Your task to perform on an android device: Check out the top rated books on Goodreads. Image 0: 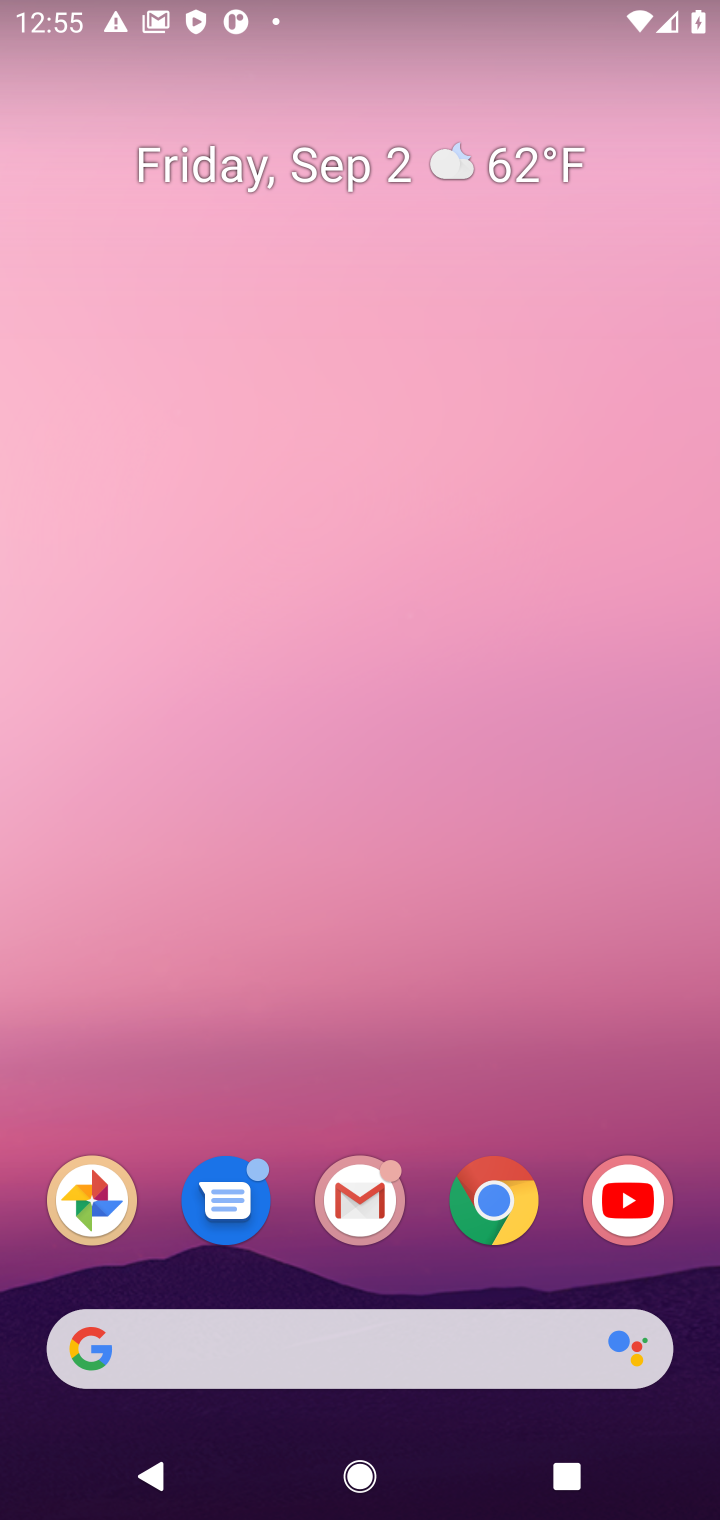
Step 0: click (495, 1201)
Your task to perform on an android device: Check out the top rated books on Goodreads. Image 1: 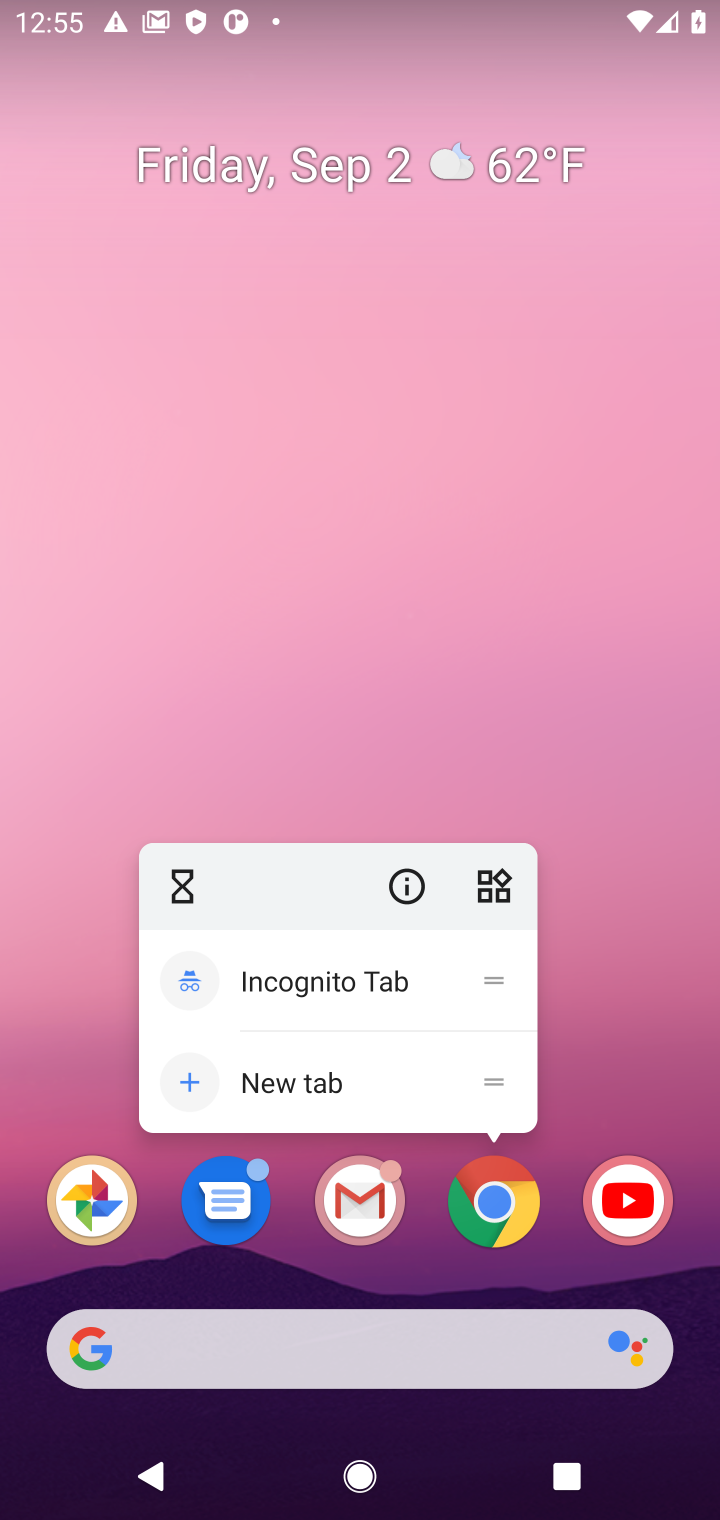
Step 1: click (495, 1205)
Your task to perform on an android device: Check out the top rated books on Goodreads. Image 2: 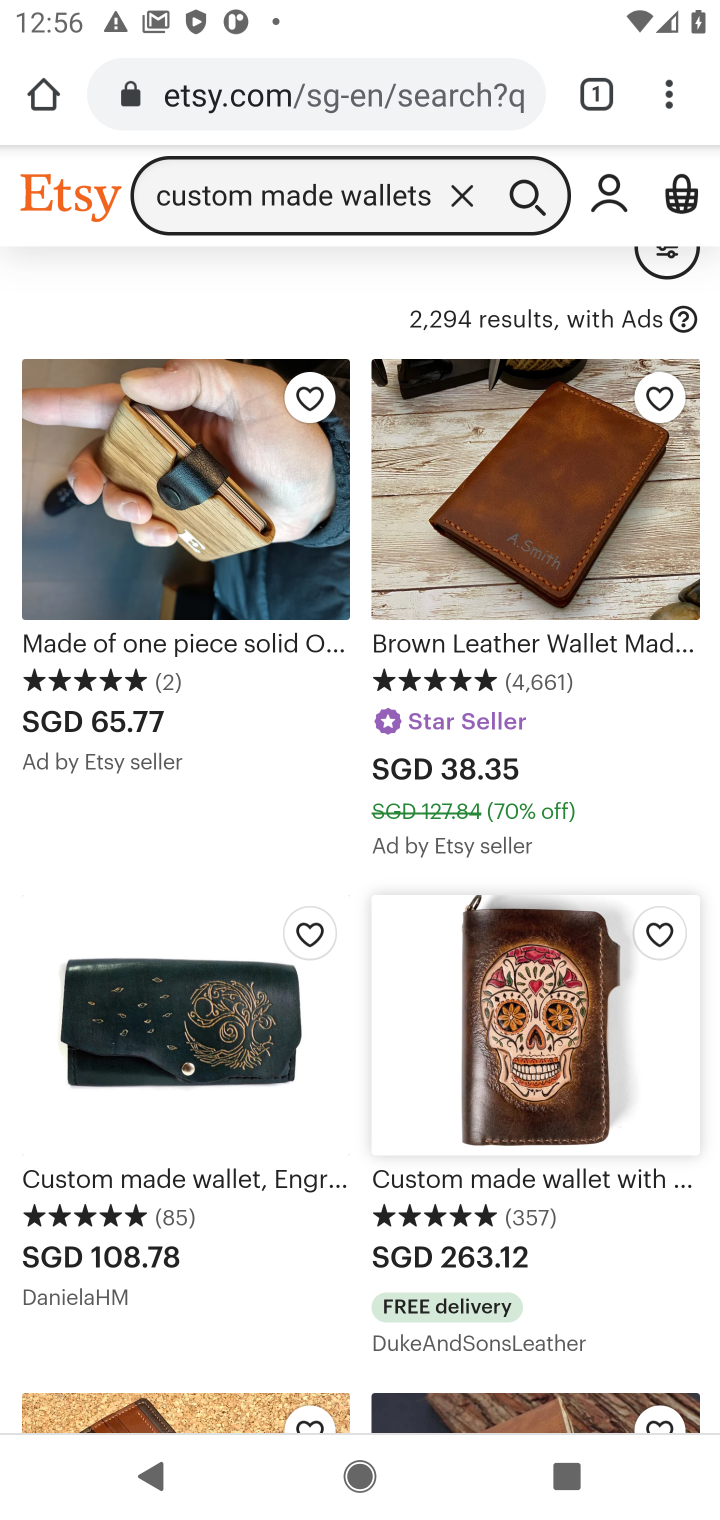
Step 2: click (369, 90)
Your task to perform on an android device: Check out the top rated books on Goodreads. Image 3: 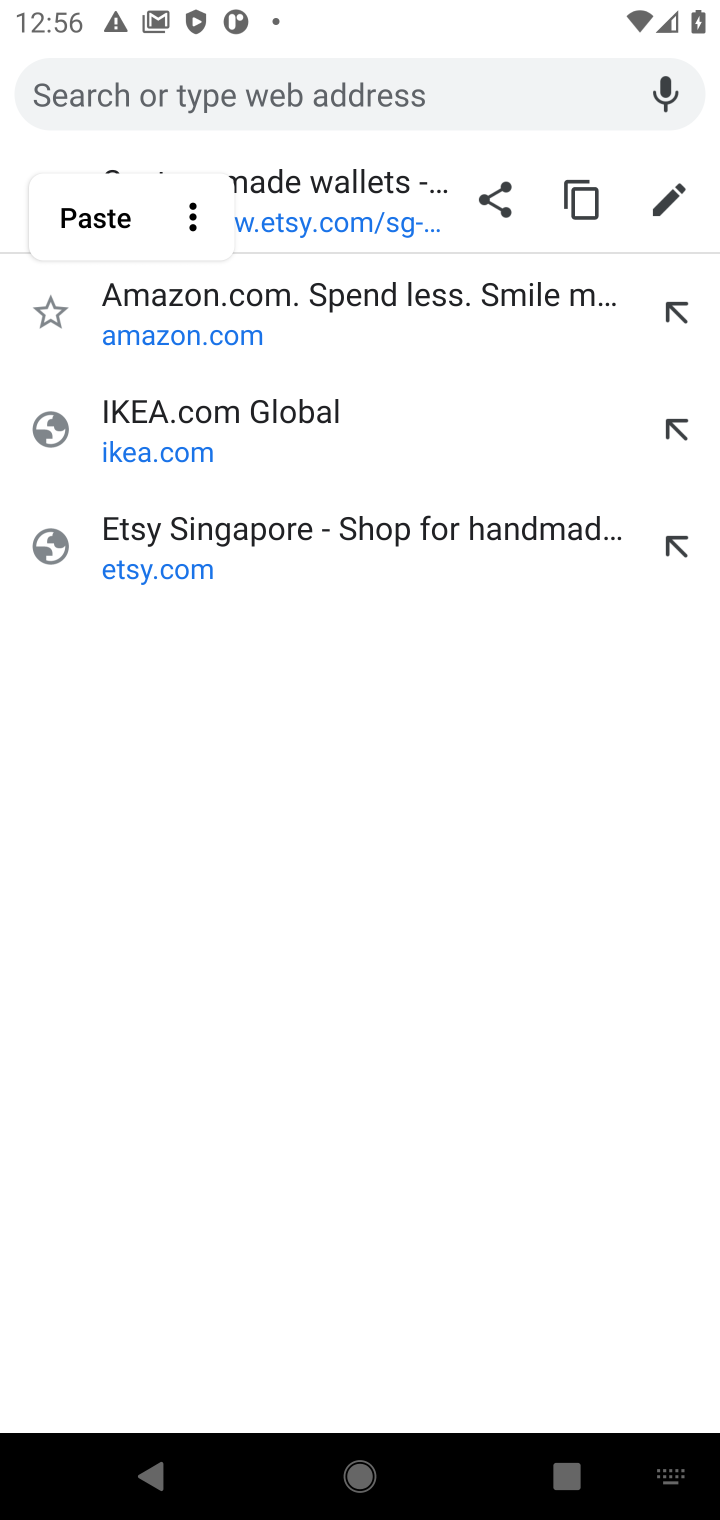
Step 3: type "Goodreads"
Your task to perform on an android device: Check out the top rated books on Goodreads. Image 4: 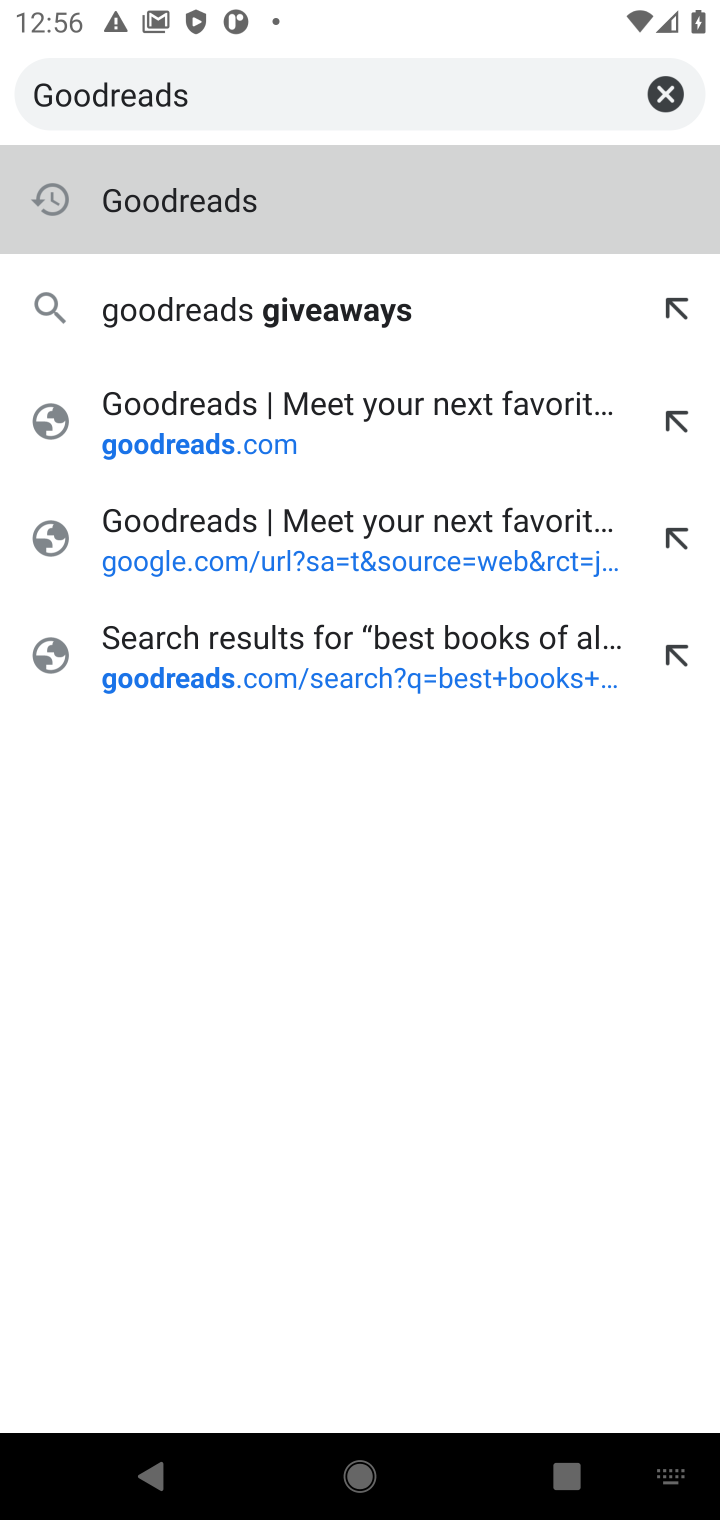
Step 4: press enter
Your task to perform on an android device: Check out the top rated books on Goodreads. Image 5: 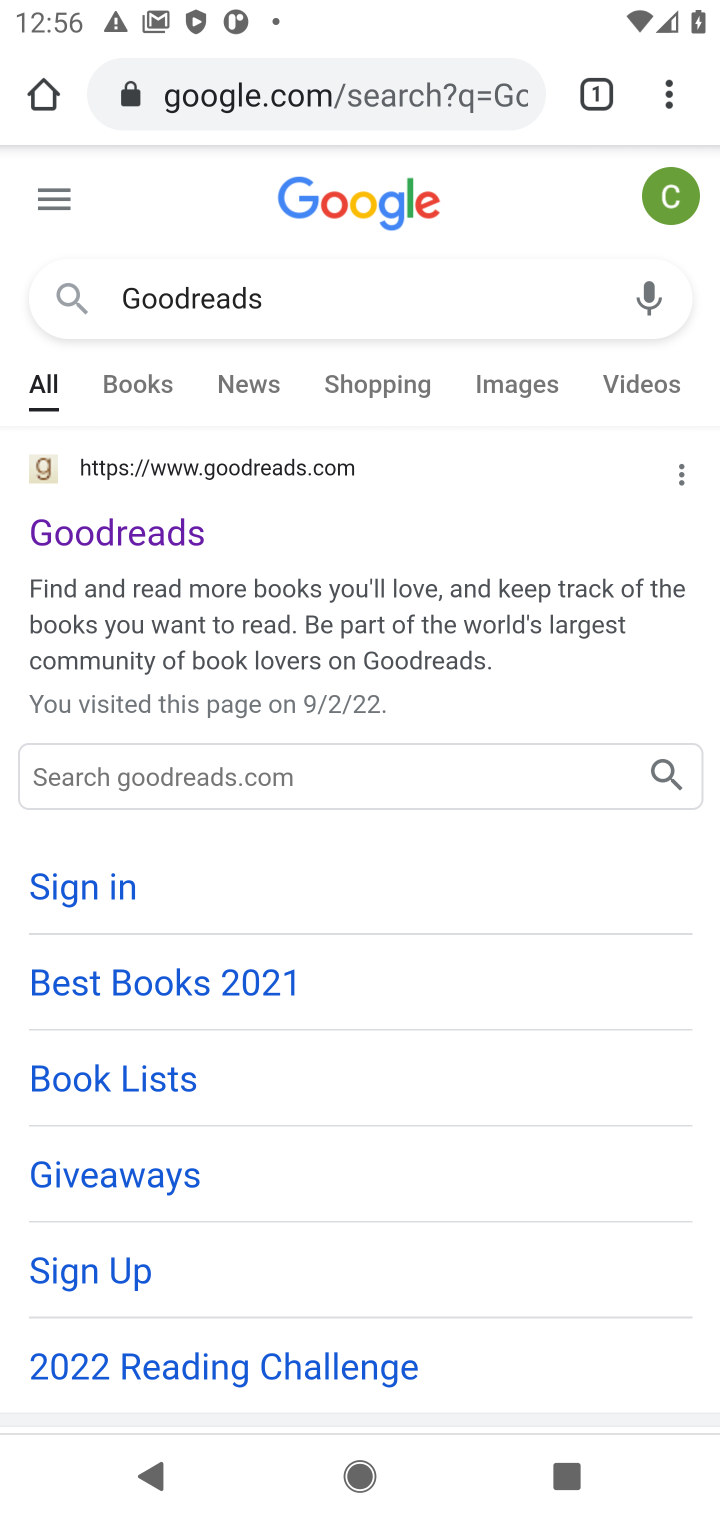
Step 5: click (169, 524)
Your task to perform on an android device: Check out the top rated books on Goodreads. Image 6: 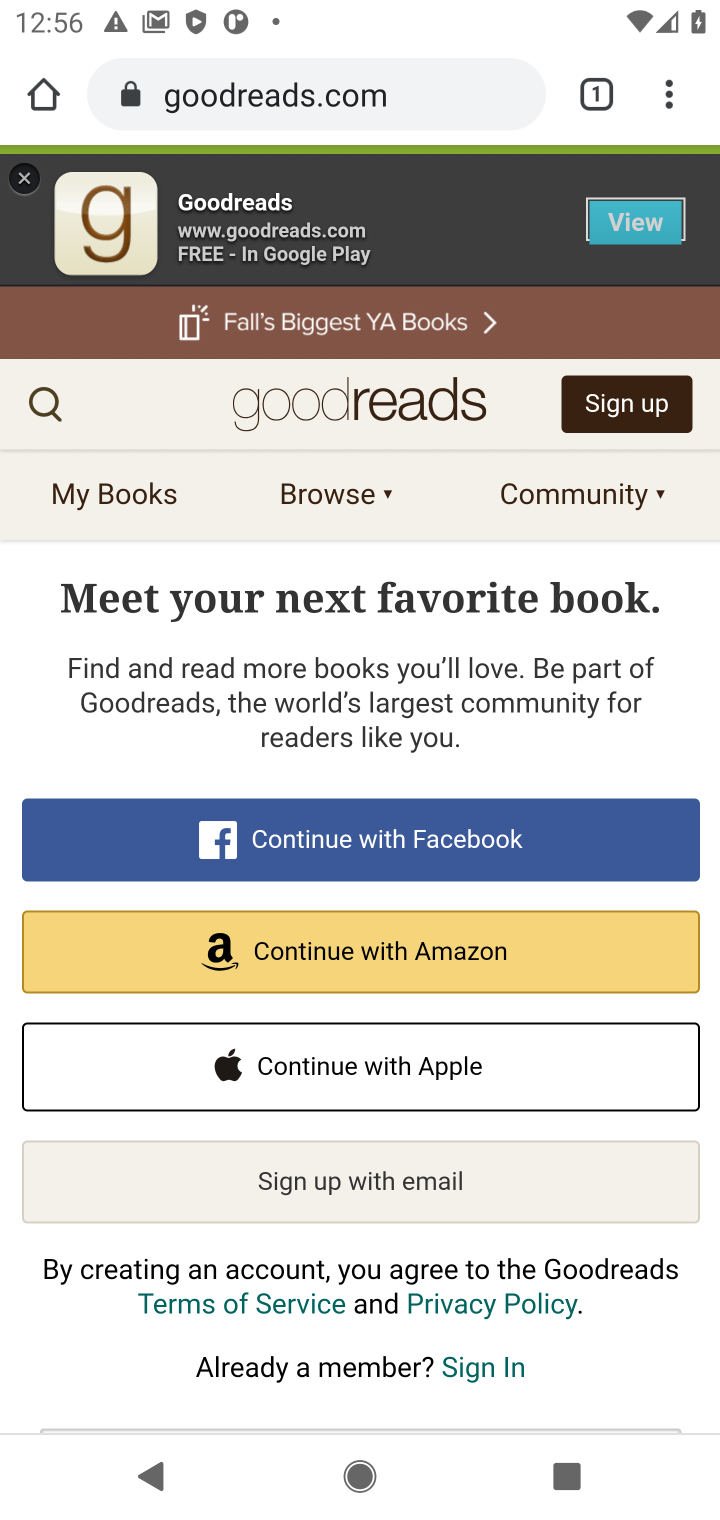
Step 6: click (35, 405)
Your task to perform on an android device: Check out the top rated books on Goodreads. Image 7: 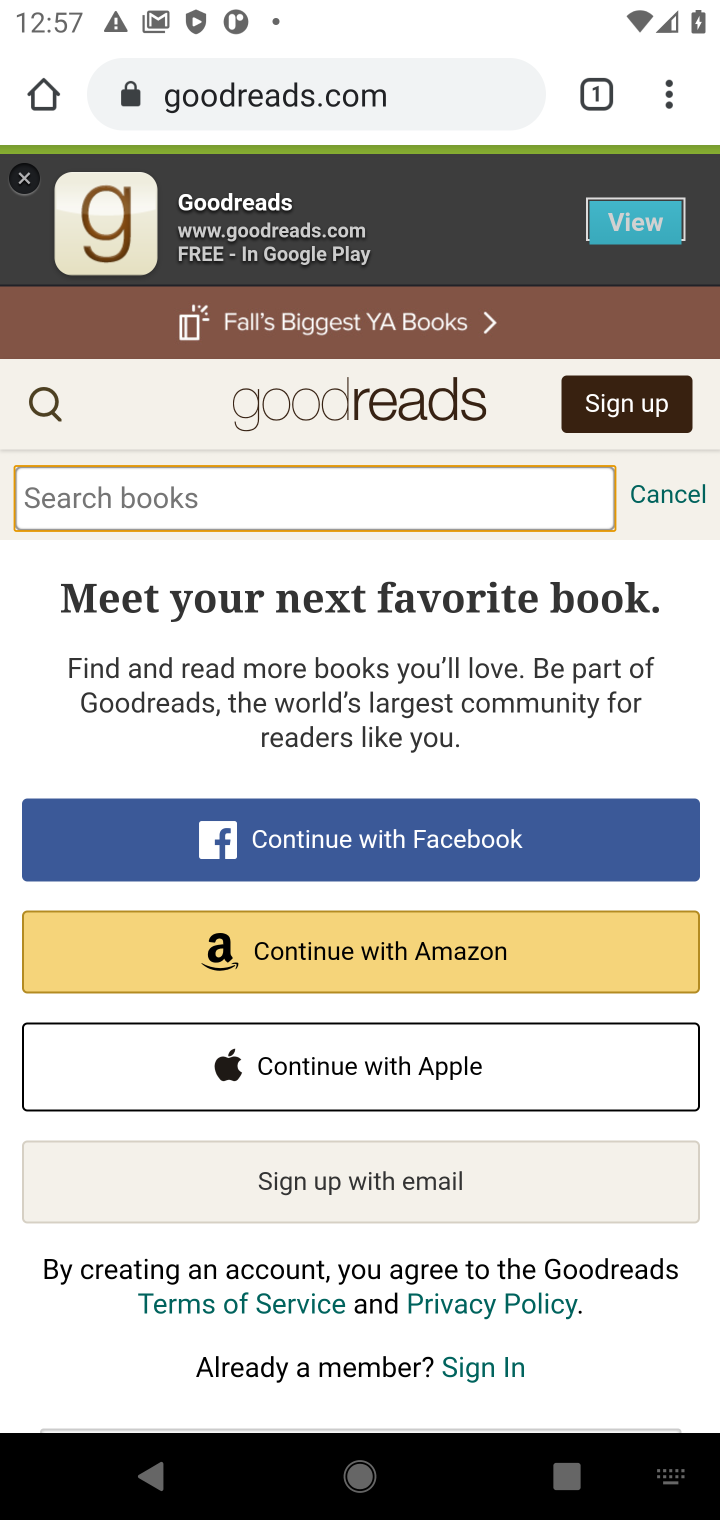
Step 7: type " top rated books "
Your task to perform on an android device: Check out the top rated books on Goodreads. Image 8: 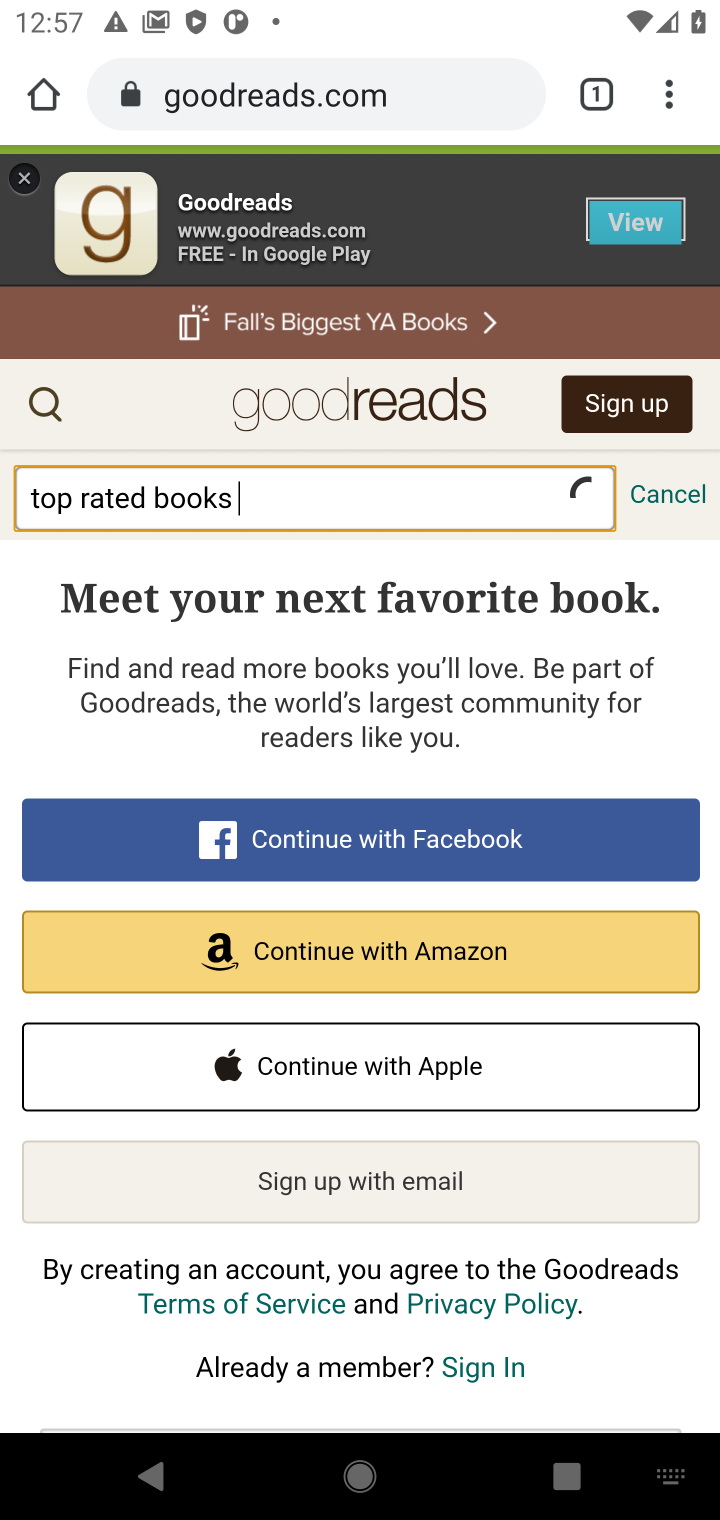
Step 8: press enter
Your task to perform on an android device: Check out the top rated books on Goodreads. Image 9: 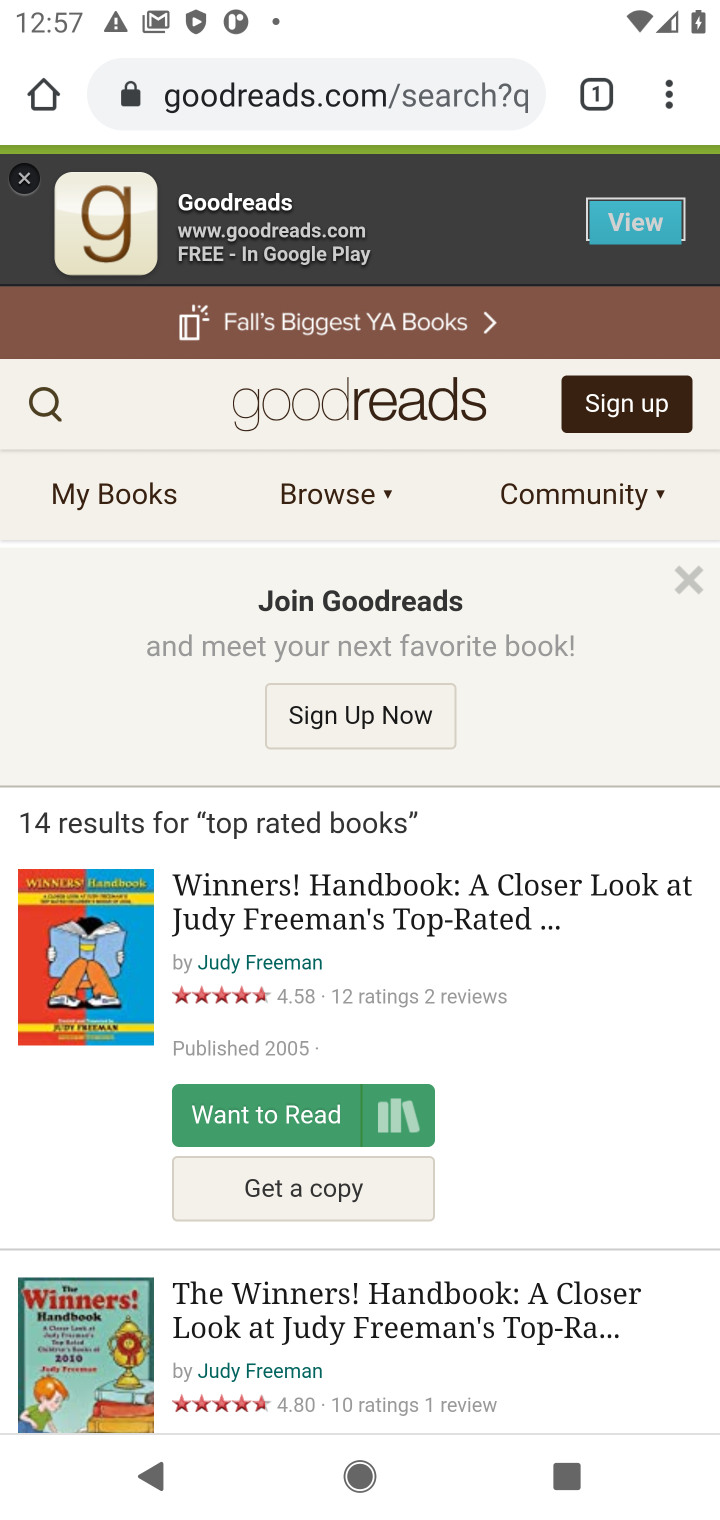
Step 9: task complete